Your task to perform on an android device: Open network settings Image 0: 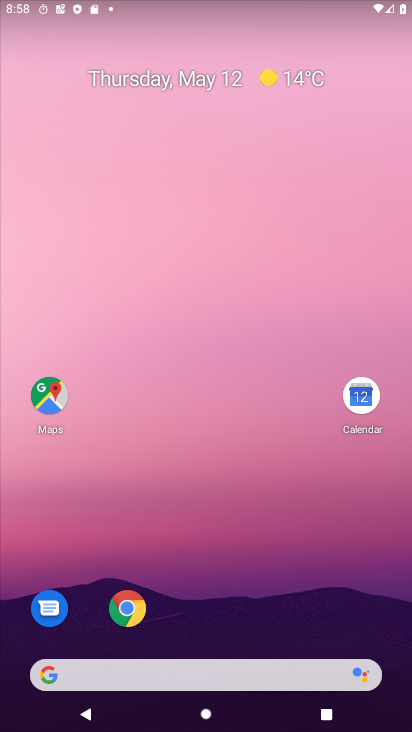
Step 0: drag from (232, 511) to (184, 163)
Your task to perform on an android device: Open network settings Image 1: 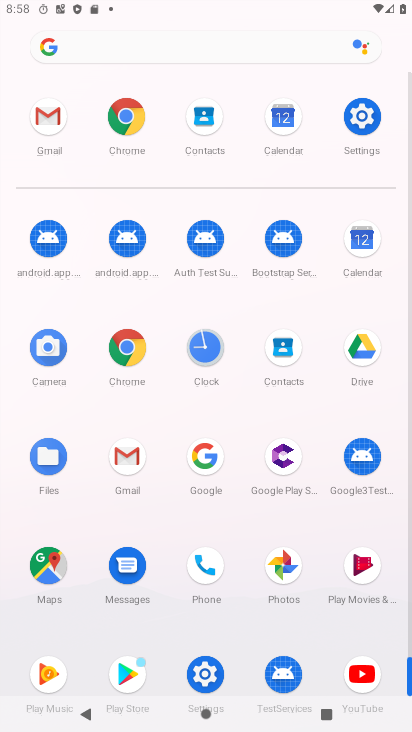
Step 1: click (351, 126)
Your task to perform on an android device: Open network settings Image 2: 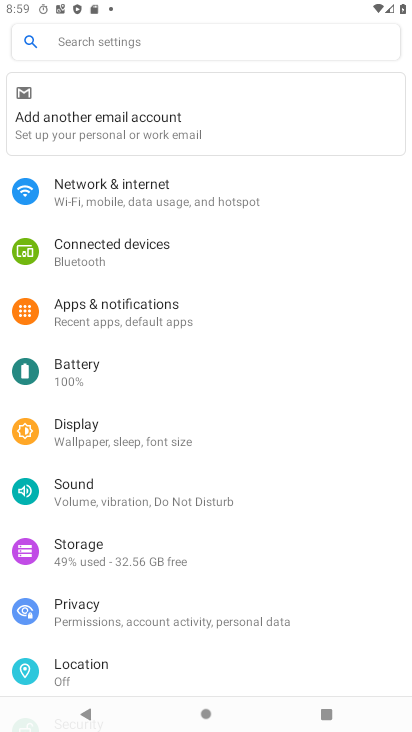
Step 2: click (107, 216)
Your task to perform on an android device: Open network settings Image 3: 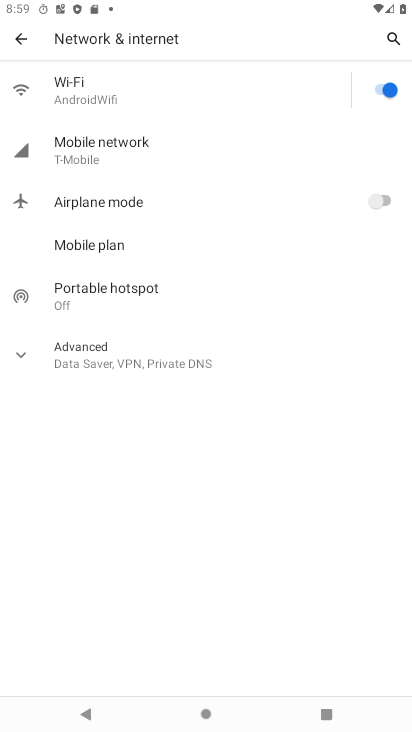
Step 3: task complete